Your task to perform on an android device: turn on priority inbox in the gmail app Image 0: 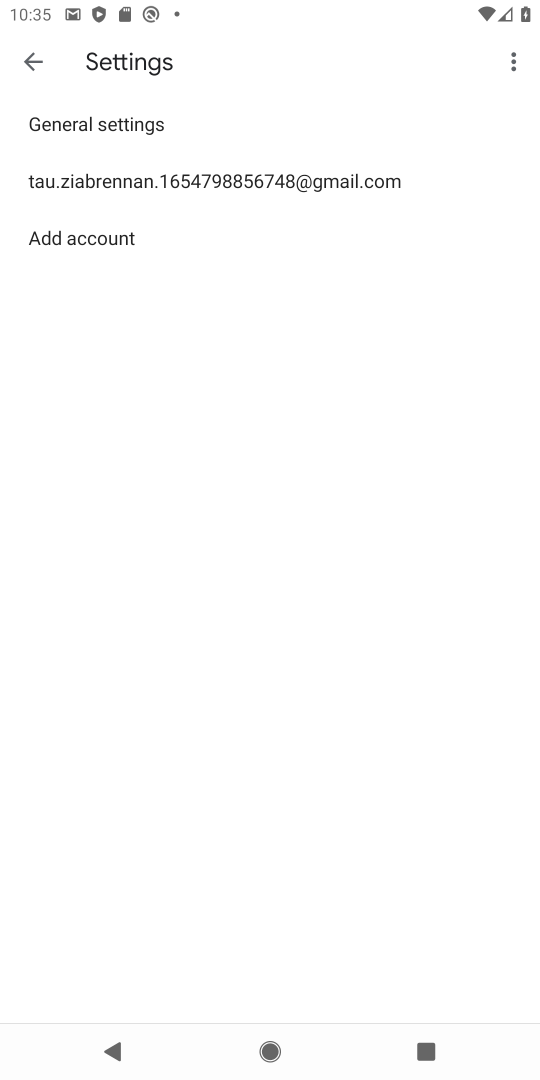
Step 0: press back button
Your task to perform on an android device: turn on priority inbox in the gmail app Image 1: 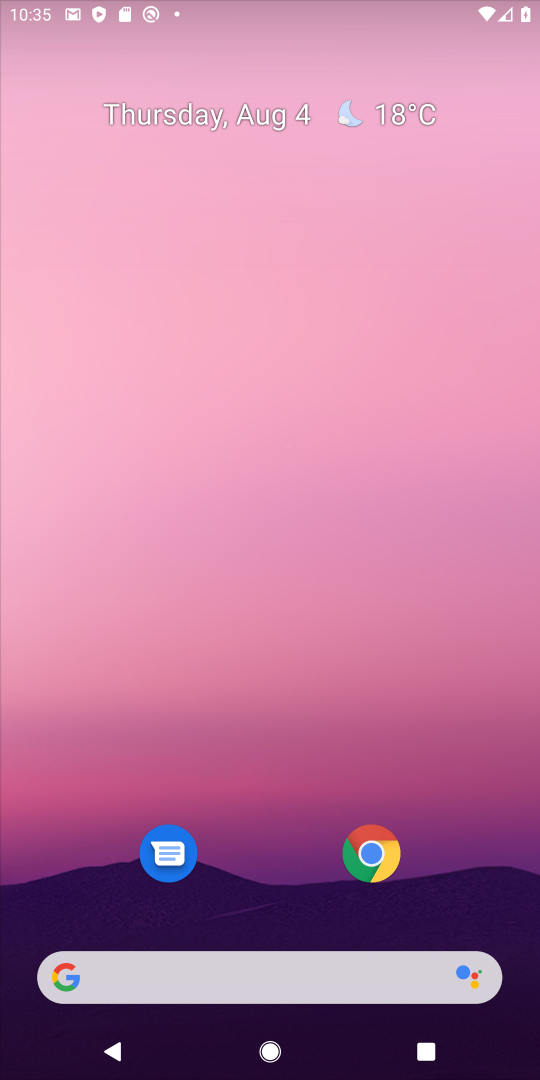
Step 1: click (272, 178)
Your task to perform on an android device: turn on priority inbox in the gmail app Image 2: 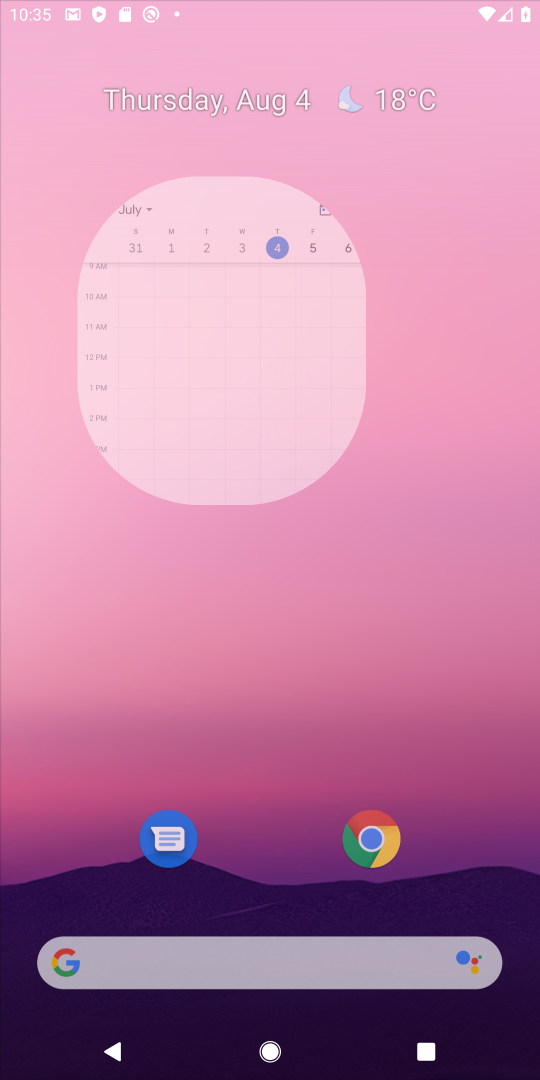
Step 2: drag from (265, 908) to (267, 81)
Your task to perform on an android device: turn on priority inbox in the gmail app Image 3: 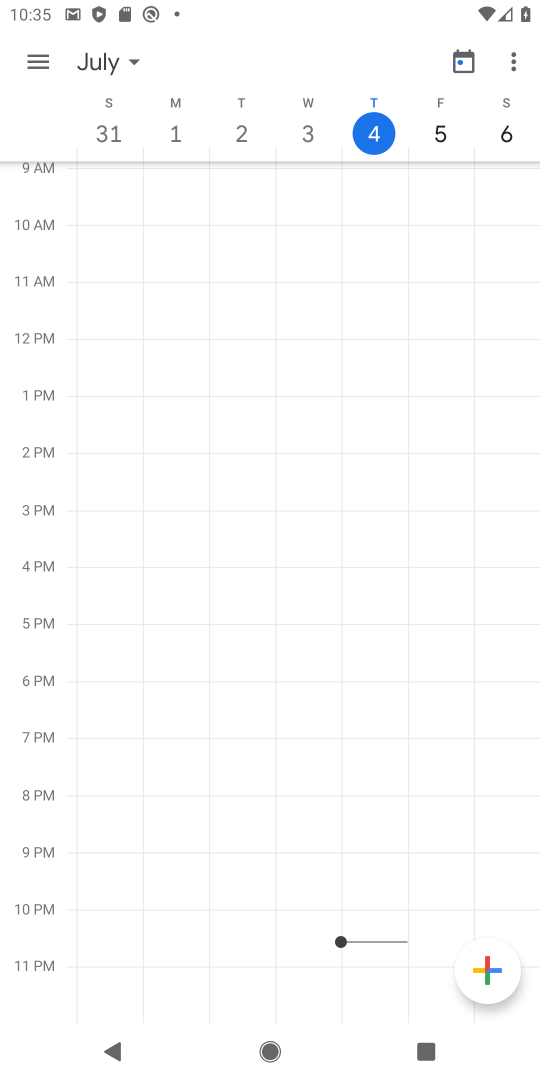
Step 3: press home button
Your task to perform on an android device: turn on priority inbox in the gmail app Image 4: 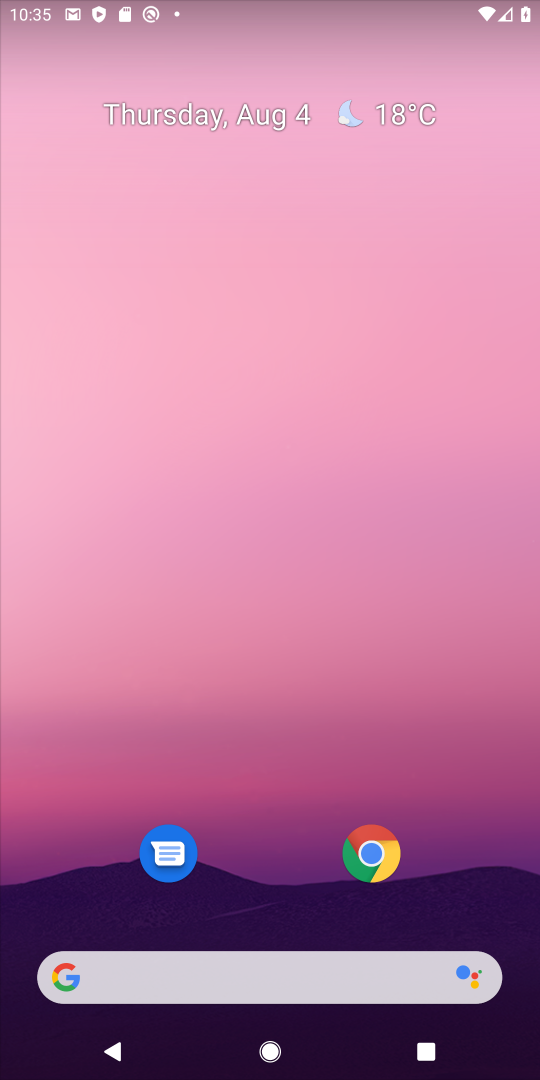
Step 4: drag from (289, 917) to (207, 233)
Your task to perform on an android device: turn on priority inbox in the gmail app Image 5: 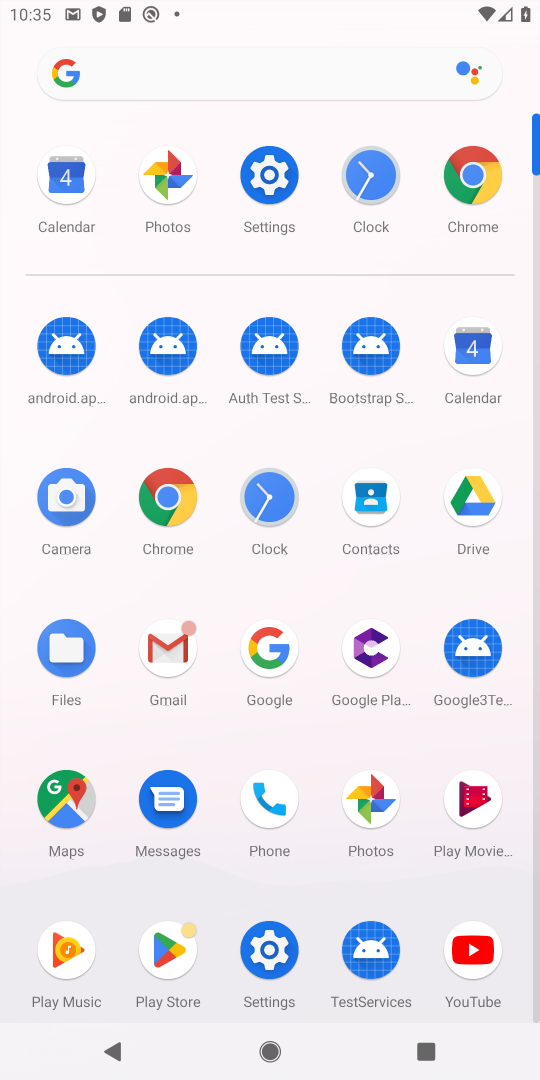
Step 5: click (152, 650)
Your task to perform on an android device: turn on priority inbox in the gmail app Image 6: 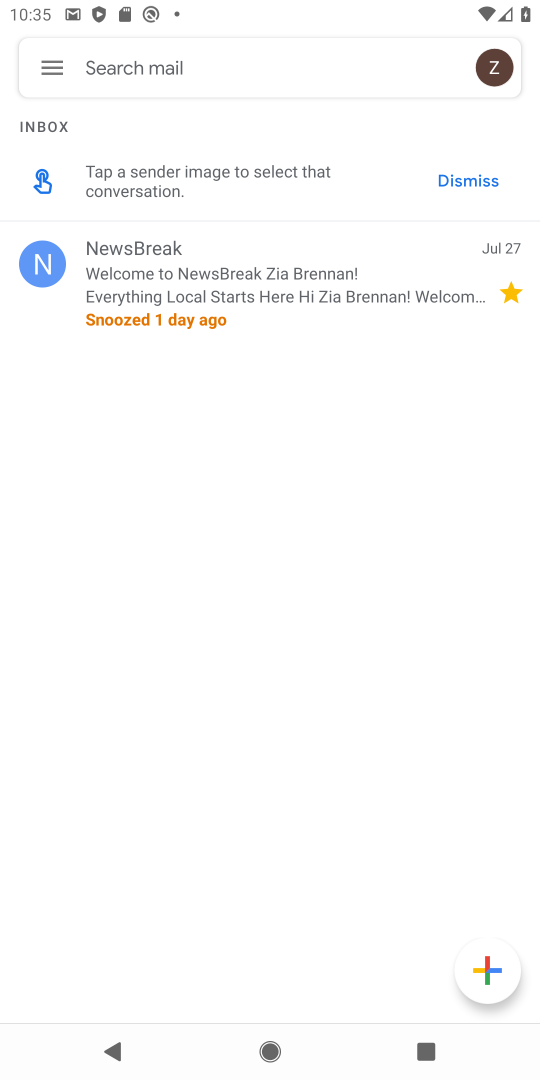
Step 6: click (52, 70)
Your task to perform on an android device: turn on priority inbox in the gmail app Image 7: 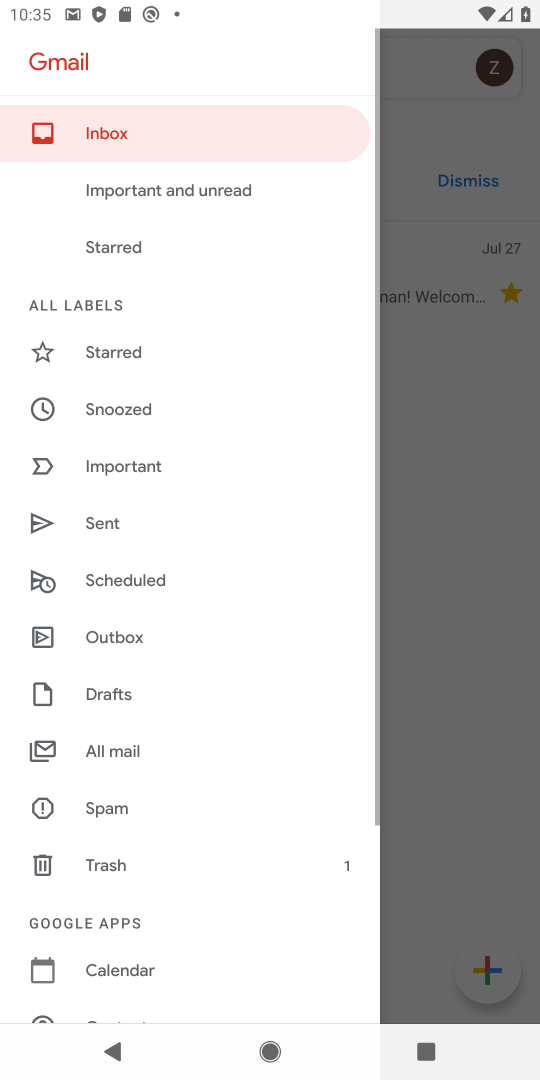
Step 7: drag from (125, 851) to (160, 168)
Your task to perform on an android device: turn on priority inbox in the gmail app Image 8: 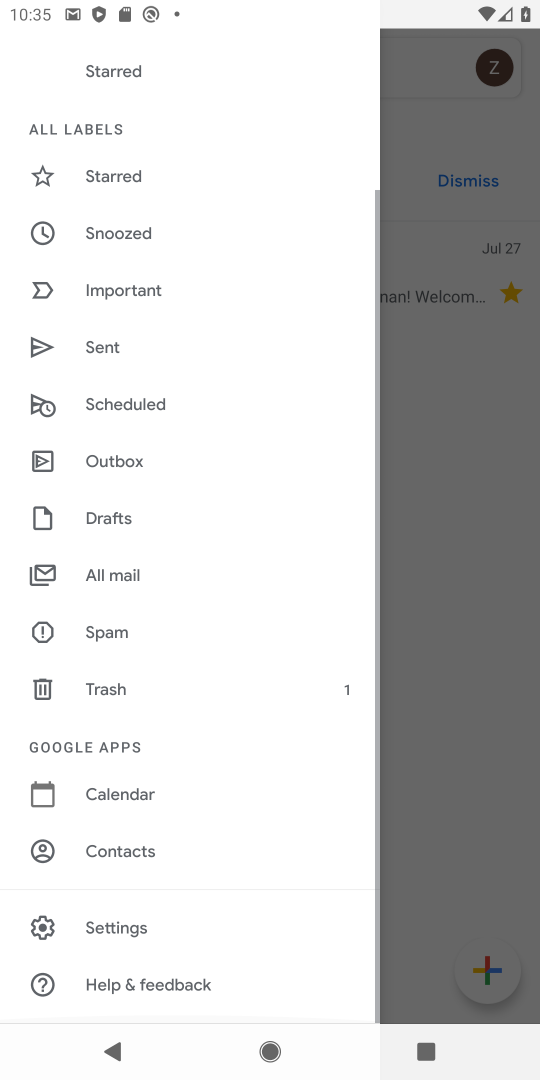
Step 8: click (155, 928)
Your task to perform on an android device: turn on priority inbox in the gmail app Image 9: 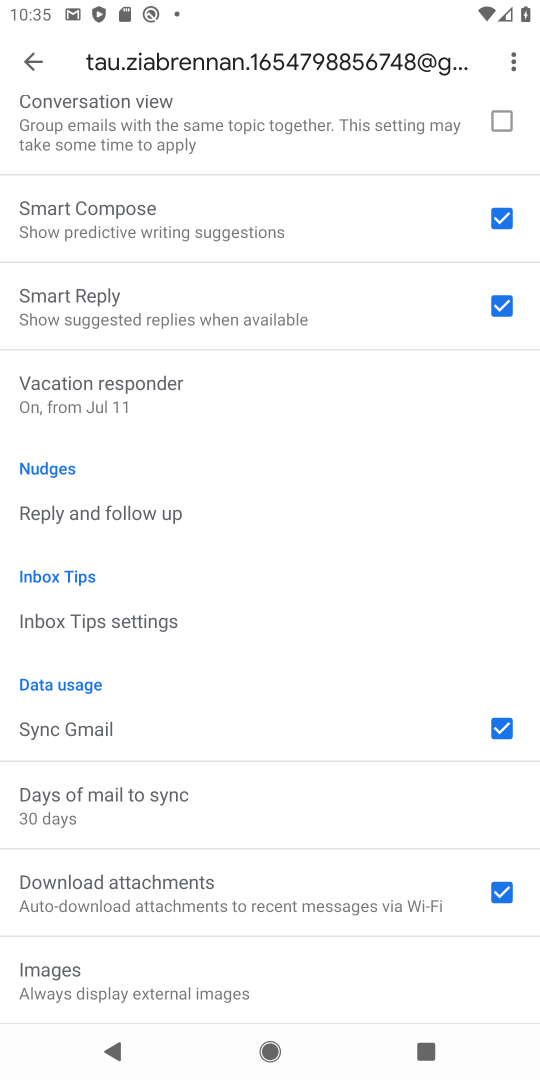
Step 9: drag from (80, 288) to (105, 884)
Your task to perform on an android device: turn on priority inbox in the gmail app Image 10: 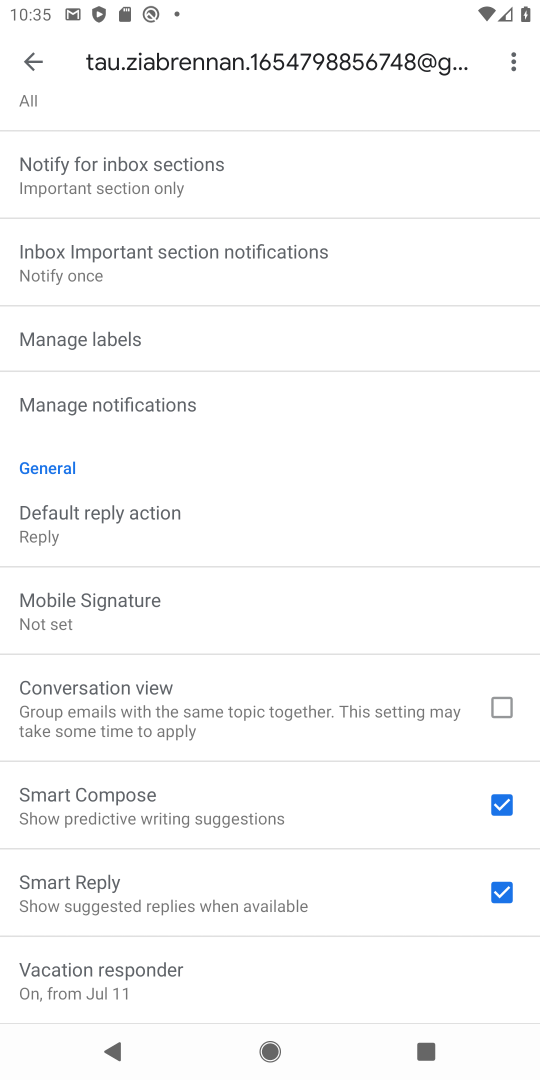
Step 10: drag from (74, 152) to (92, 823)
Your task to perform on an android device: turn on priority inbox in the gmail app Image 11: 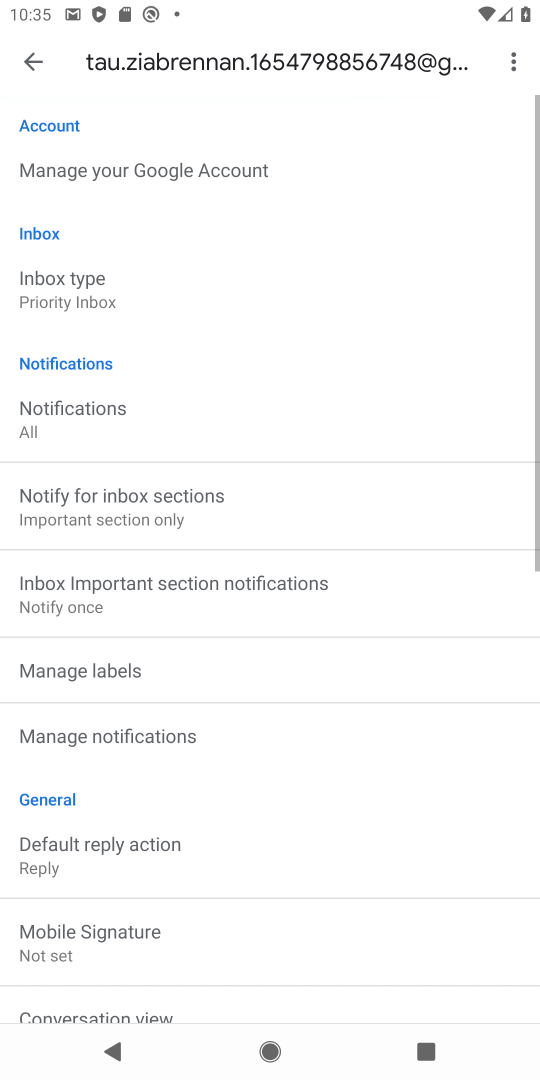
Step 11: click (89, 305)
Your task to perform on an android device: turn on priority inbox in the gmail app Image 12: 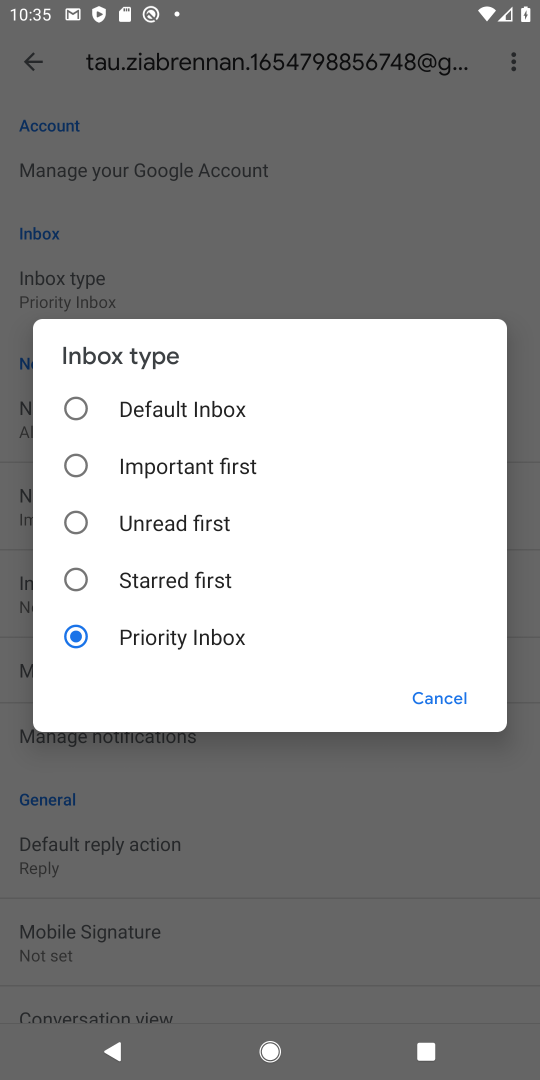
Step 12: click (128, 643)
Your task to perform on an android device: turn on priority inbox in the gmail app Image 13: 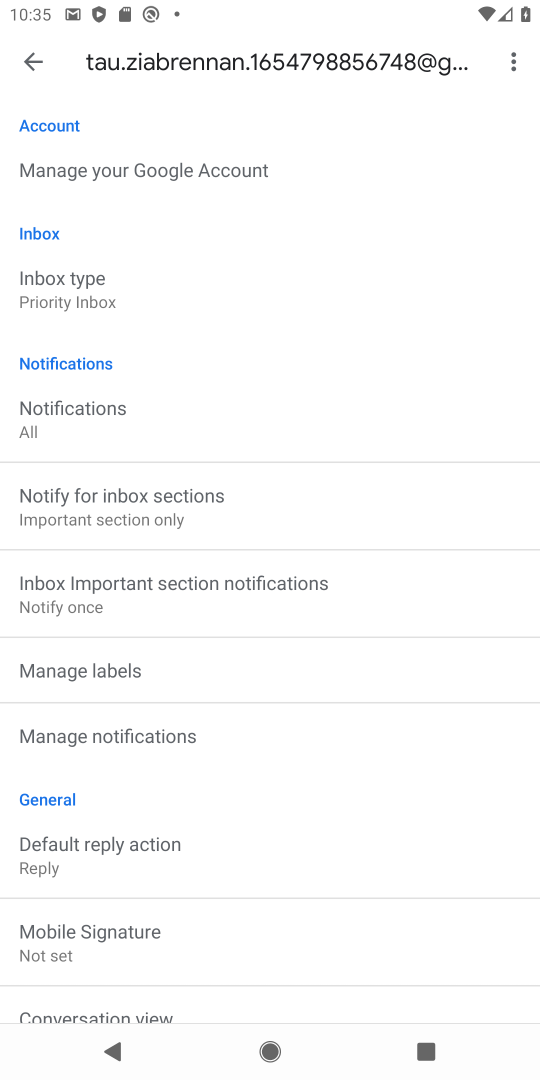
Step 13: task complete